Your task to perform on an android device: Empty the shopping cart on costco. Search for "usb-a" on costco, select the first entry, and add it to the cart. Image 0: 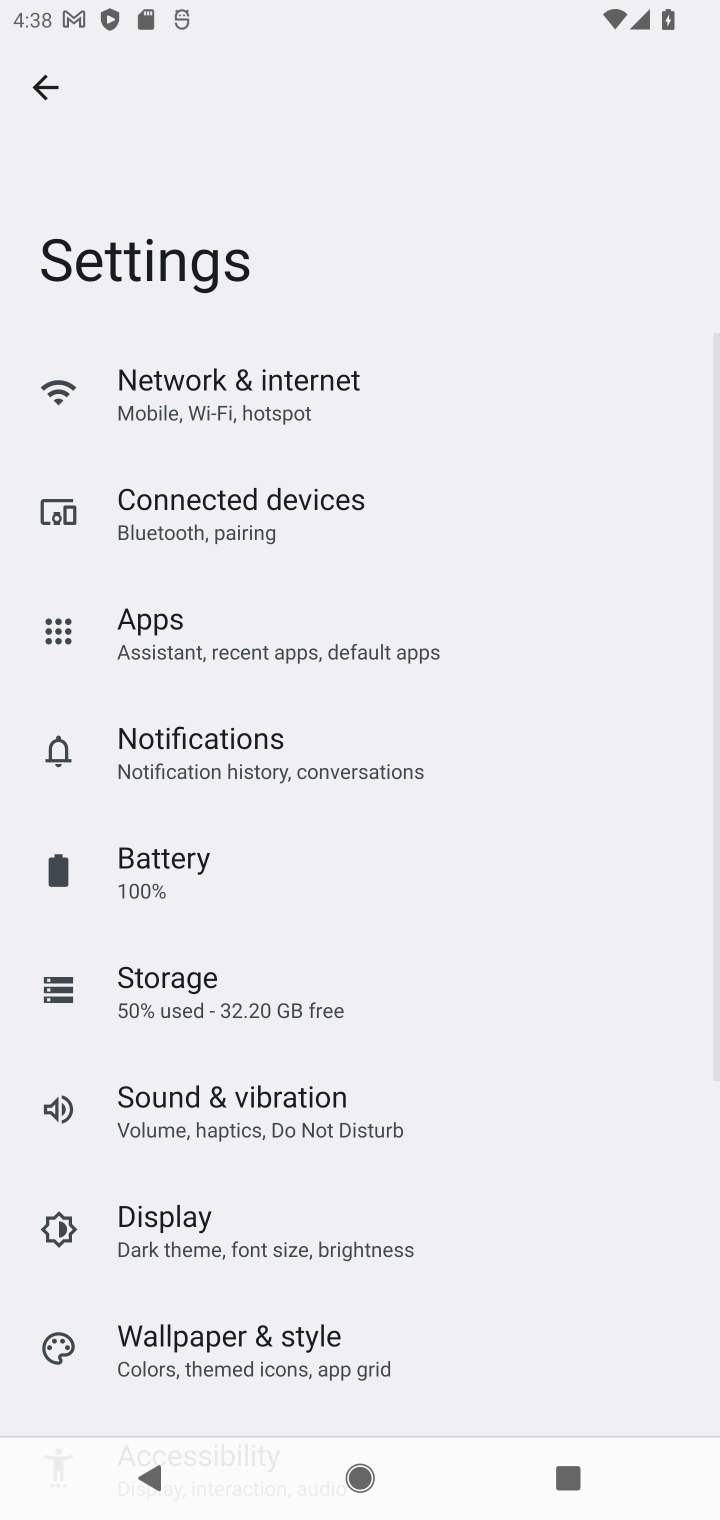
Step 0: press home button
Your task to perform on an android device: Empty the shopping cart on costco. Search for "usb-a" on costco, select the first entry, and add it to the cart. Image 1: 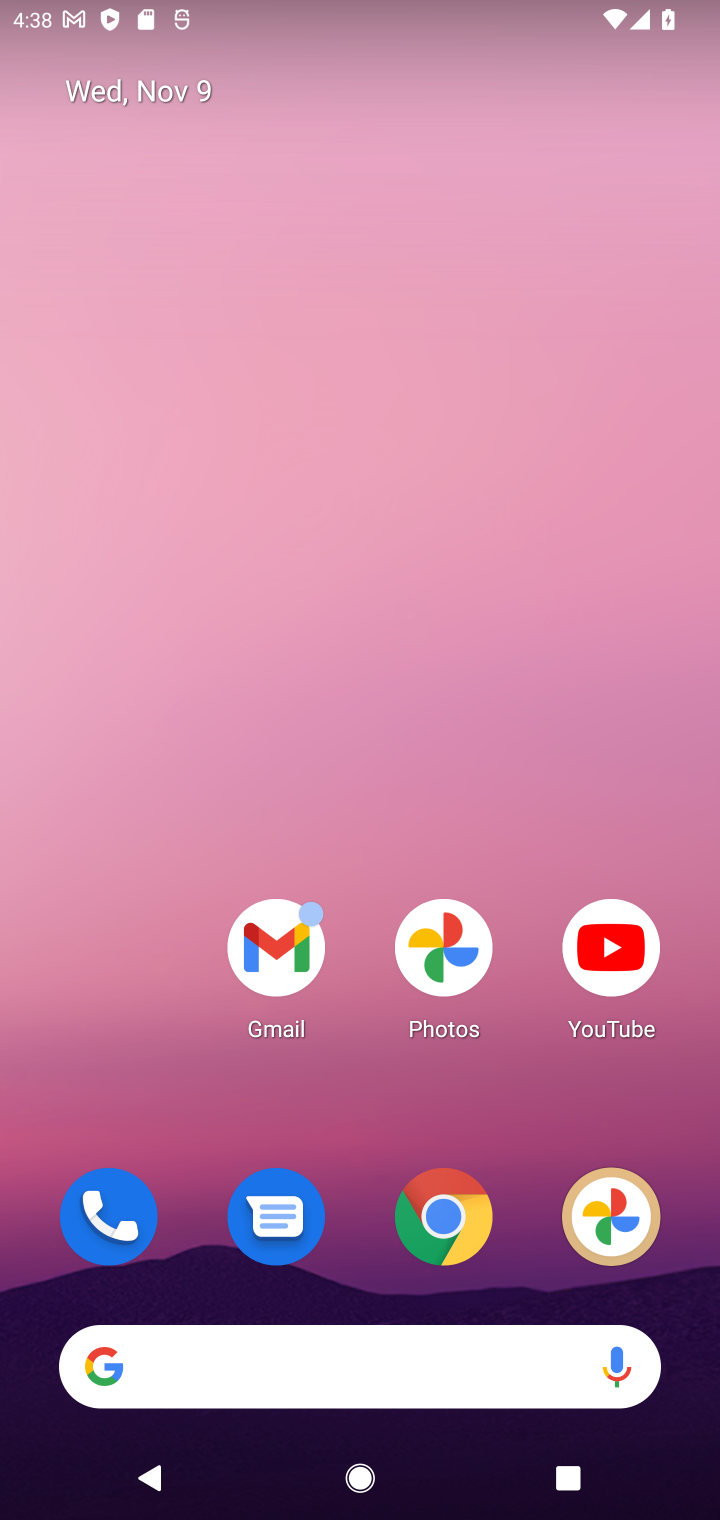
Step 1: drag from (362, 1260) to (309, 269)
Your task to perform on an android device: Empty the shopping cart on costco. Search for "usb-a" on costco, select the first entry, and add it to the cart. Image 2: 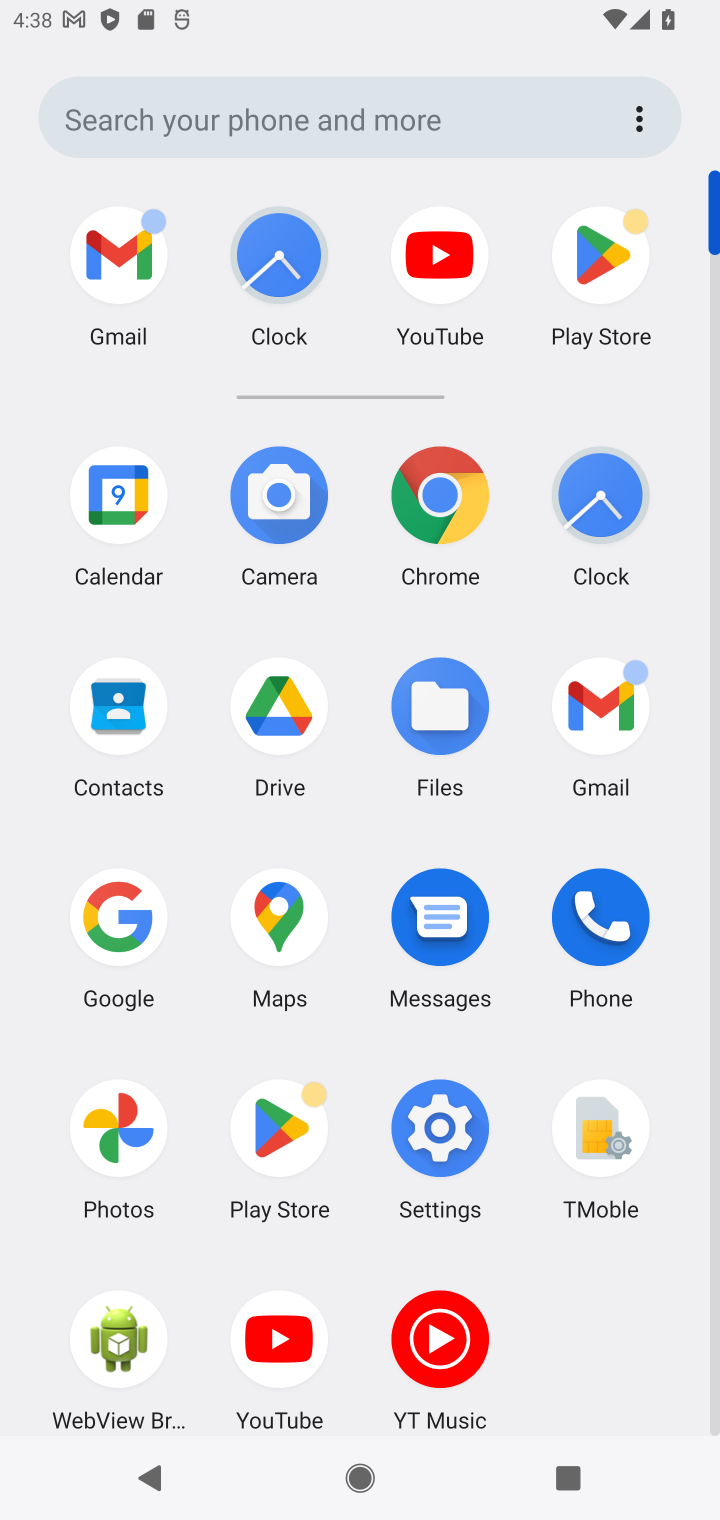
Step 2: click (447, 497)
Your task to perform on an android device: Empty the shopping cart on costco. Search for "usb-a" on costco, select the first entry, and add it to the cart. Image 3: 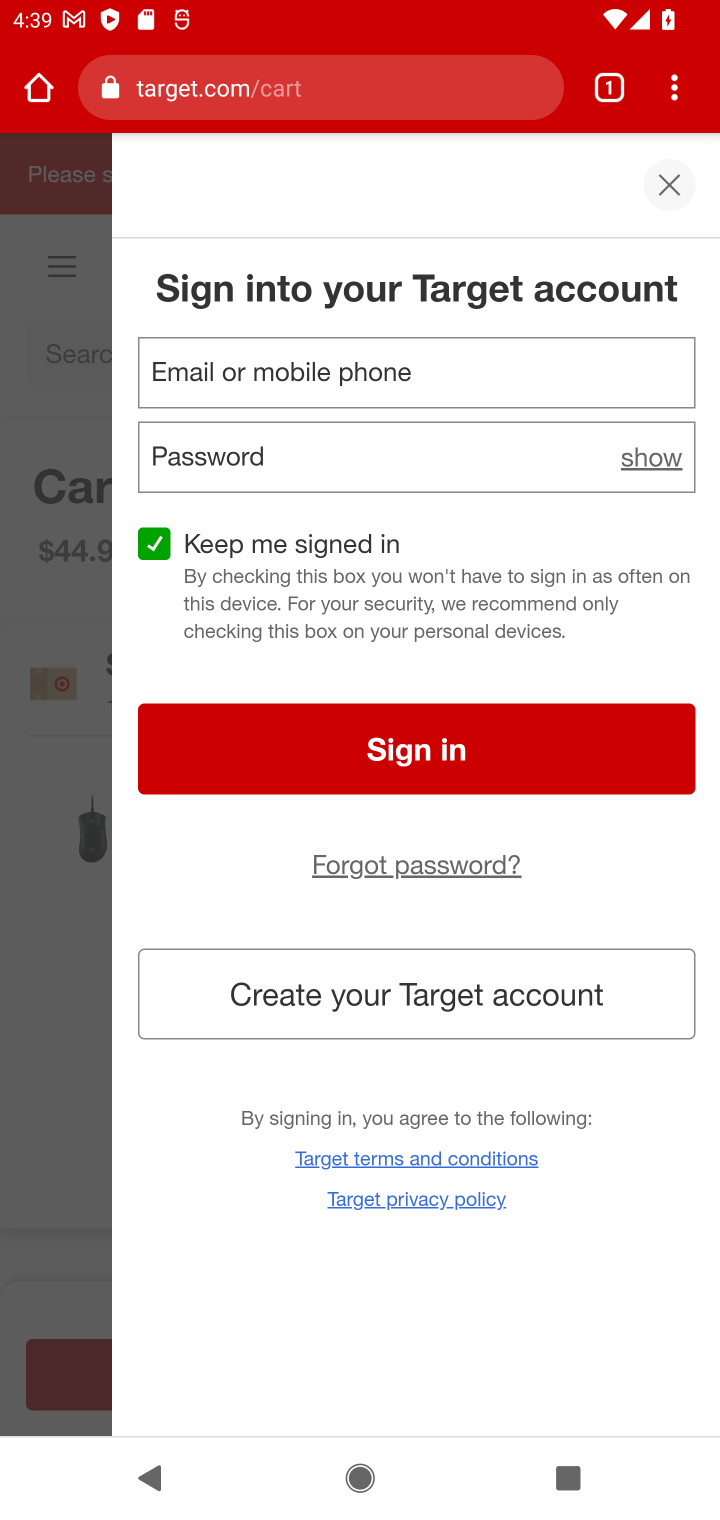
Step 3: click (405, 72)
Your task to perform on an android device: Empty the shopping cart on costco. Search for "usb-a" on costco, select the first entry, and add it to the cart. Image 4: 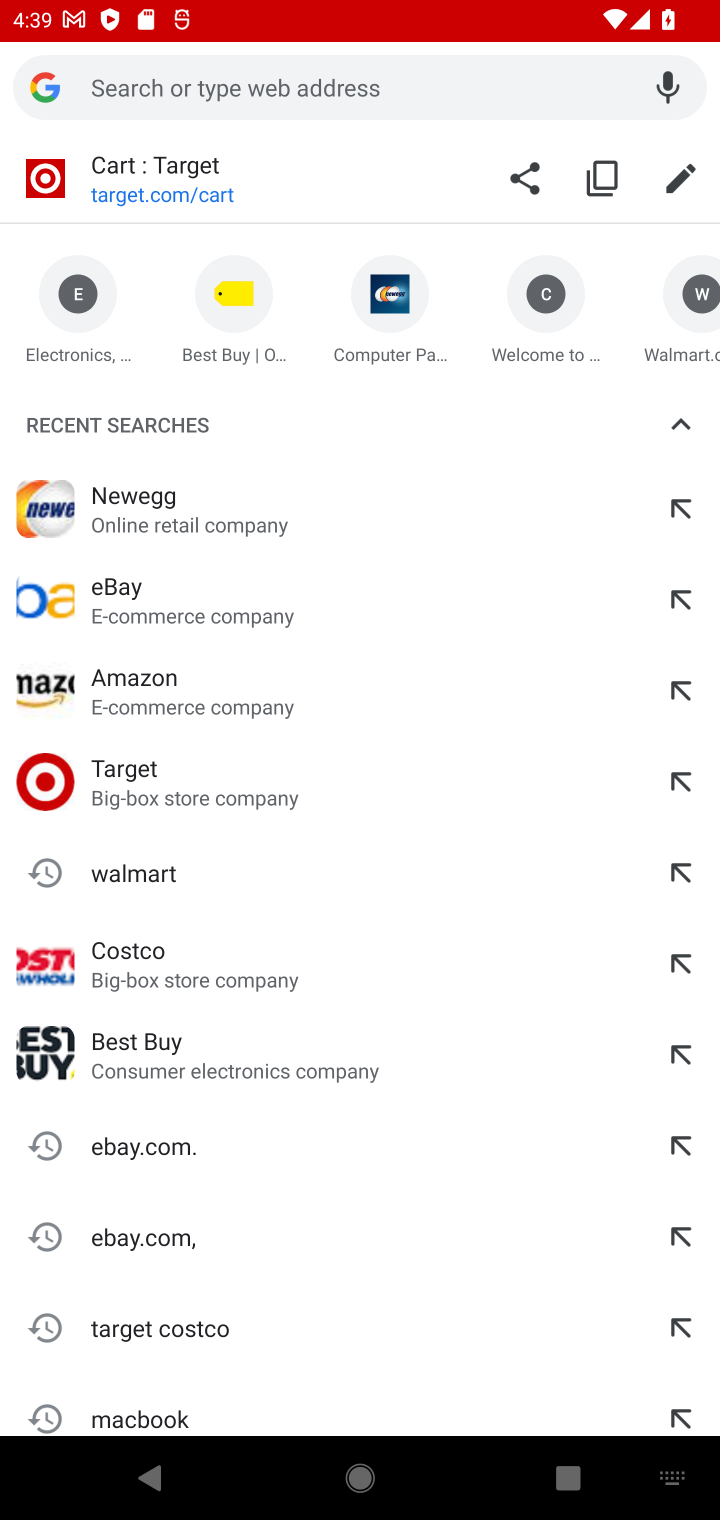
Step 4: type "costco.com"
Your task to perform on an android device: Empty the shopping cart on costco. Search for "usb-a" on costco, select the first entry, and add it to the cart. Image 5: 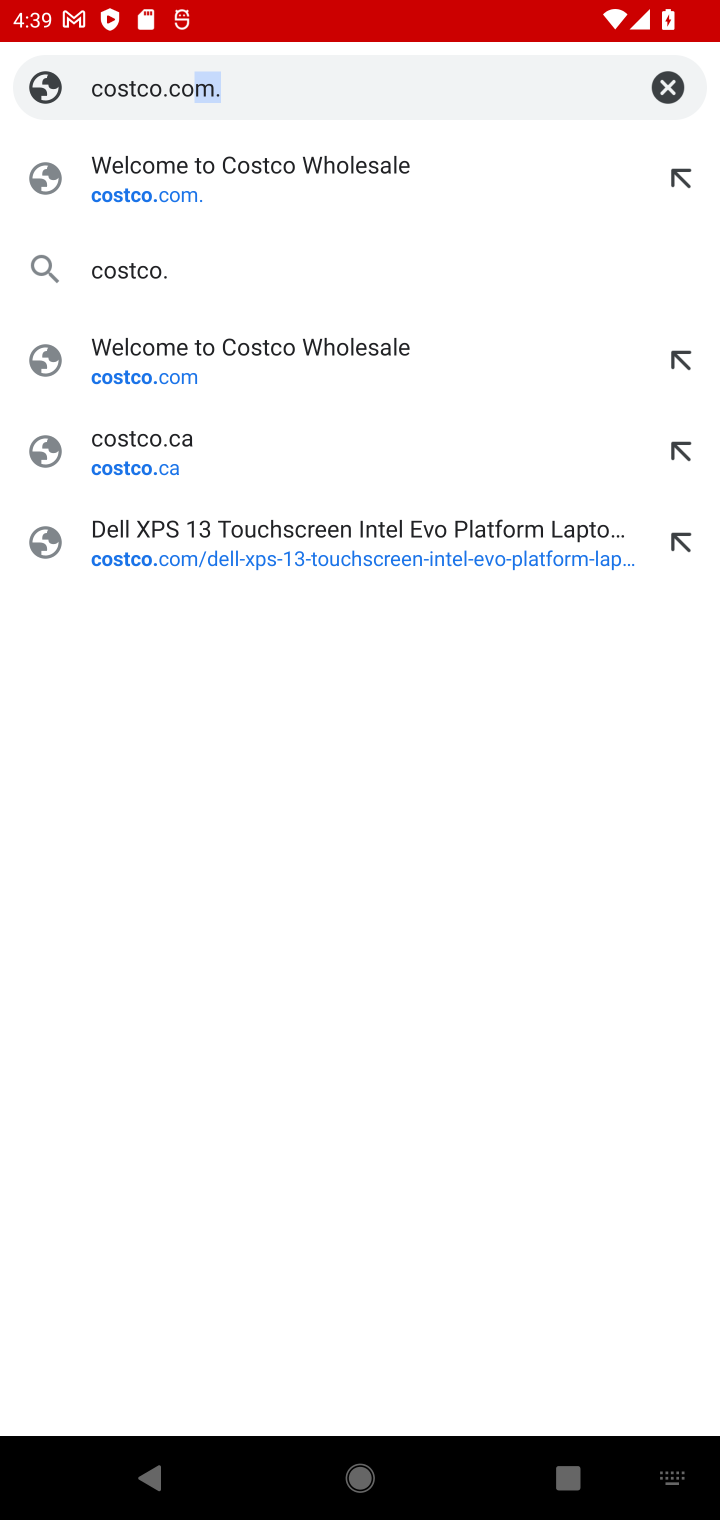
Step 5: press enter
Your task to perform on an android device: Empty the shopping cart on costco. Search for "usb-a" on costco, select the first entry, and add it to the cart. Image 6: 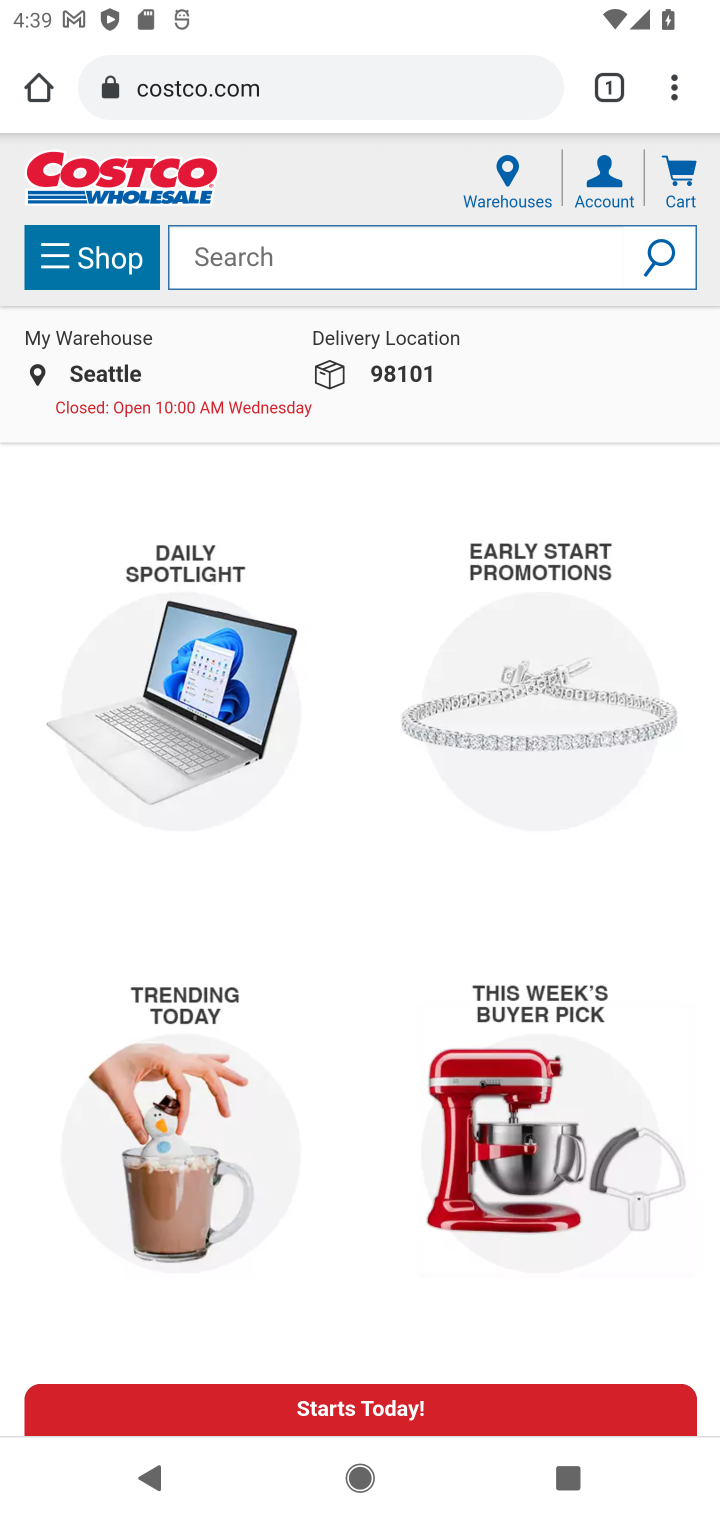
Step 6: click (682, 167)
Your task to perform on an android device: Empty the shopping cart on costco. Search for "usb-a" on costco, select the first entry, and add it to the cart. Image 7: 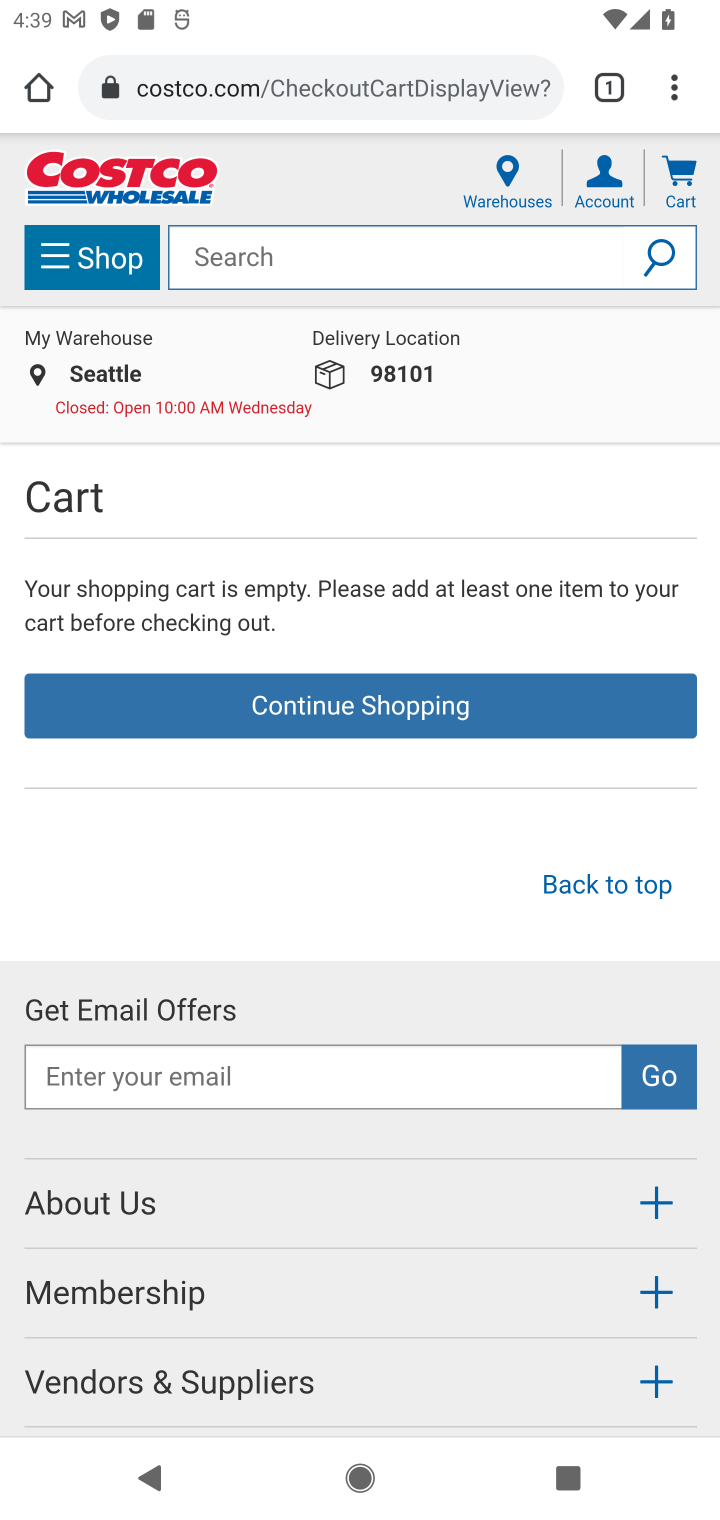
Step 7: click (515, 251)
Your task to perform on an android device: Empty the shopping cart on costco. Search for "usb-a" on costco, select the first entry, and add it to the cart. Image 8: 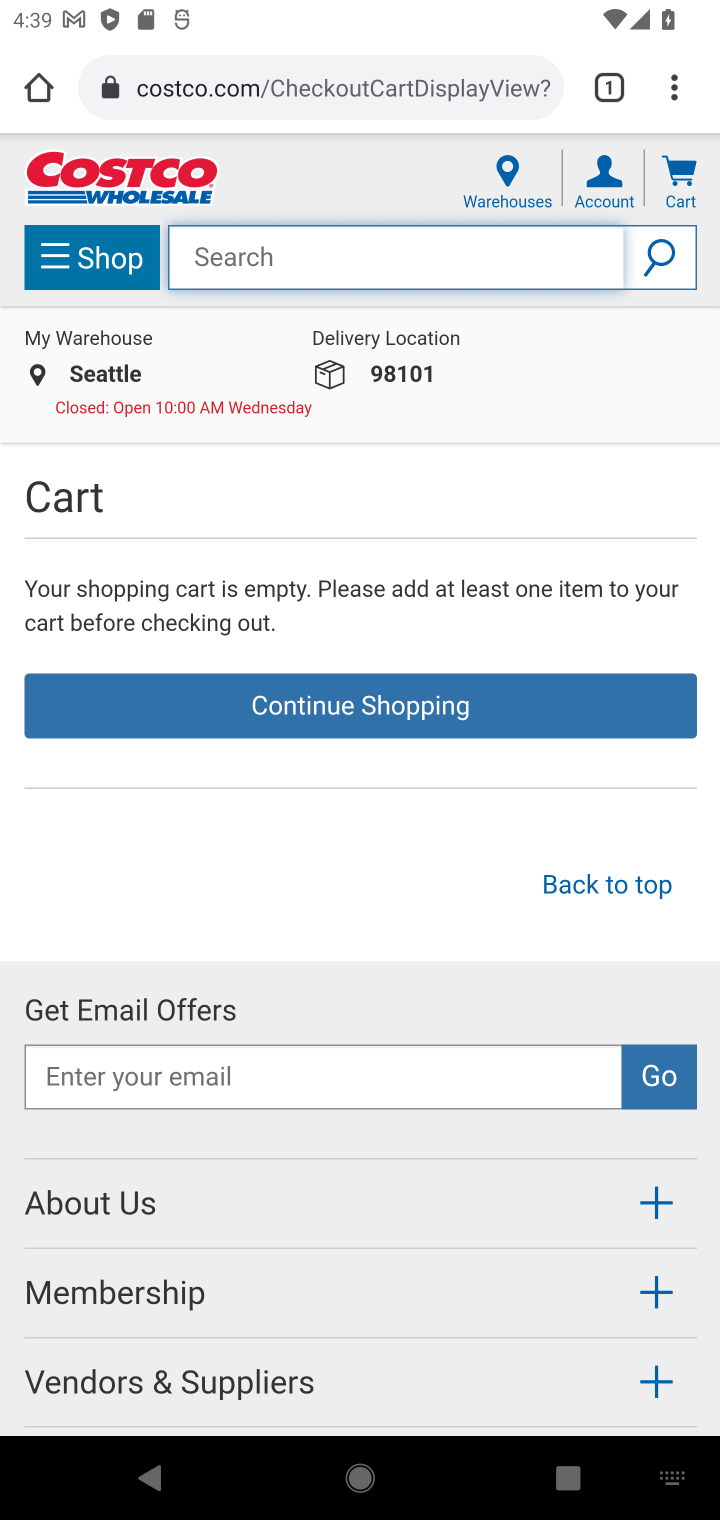
Step 8: type "usb-a"
Your task to perform on an android device: Empty the shopping cart on costco. Search for "usb-a" on costco, select the first entry, and add it to the cart. Image 9: 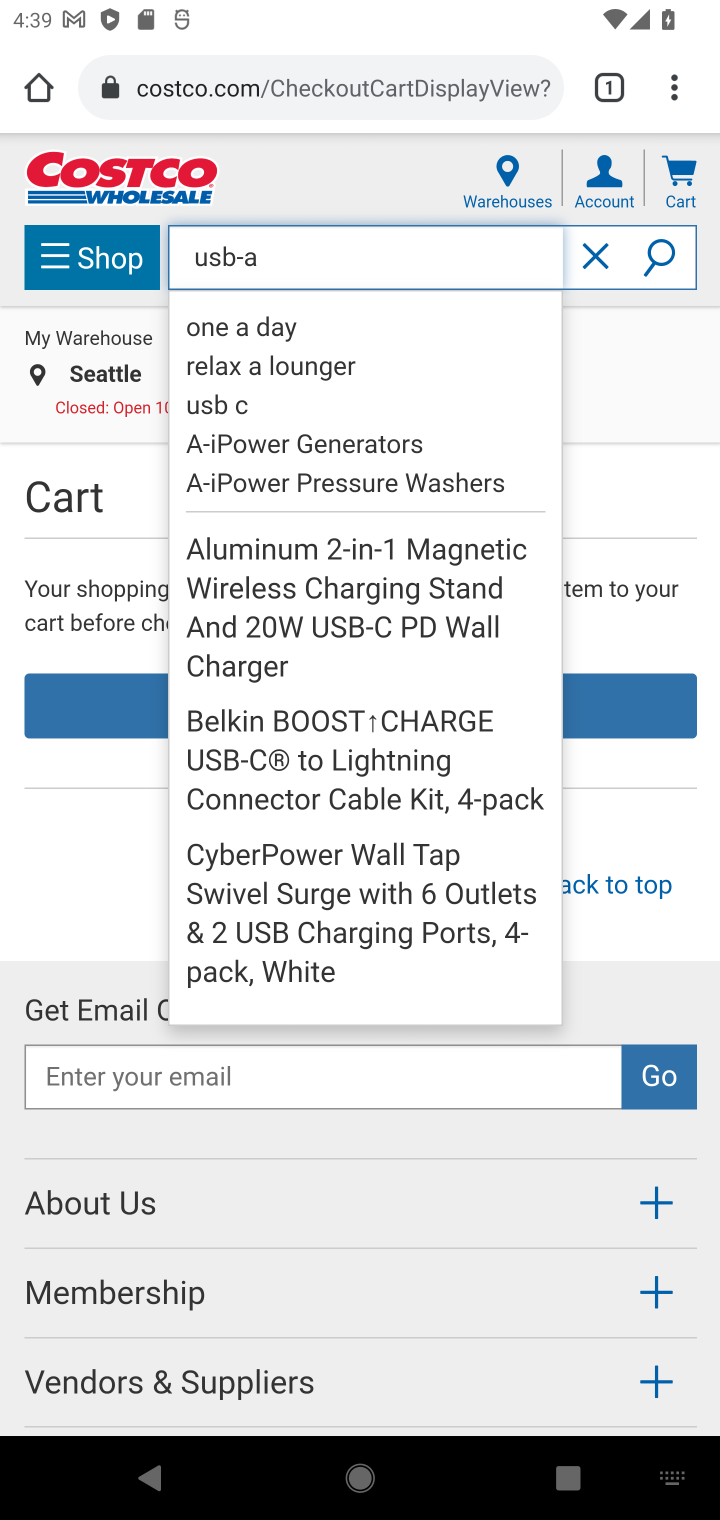
Step 9: press enter
Your task to perform on an android device: Empty the shopping cart on costco. Search for "usb-a" on costco, select the first entry, and add it to the cart. Image 10: 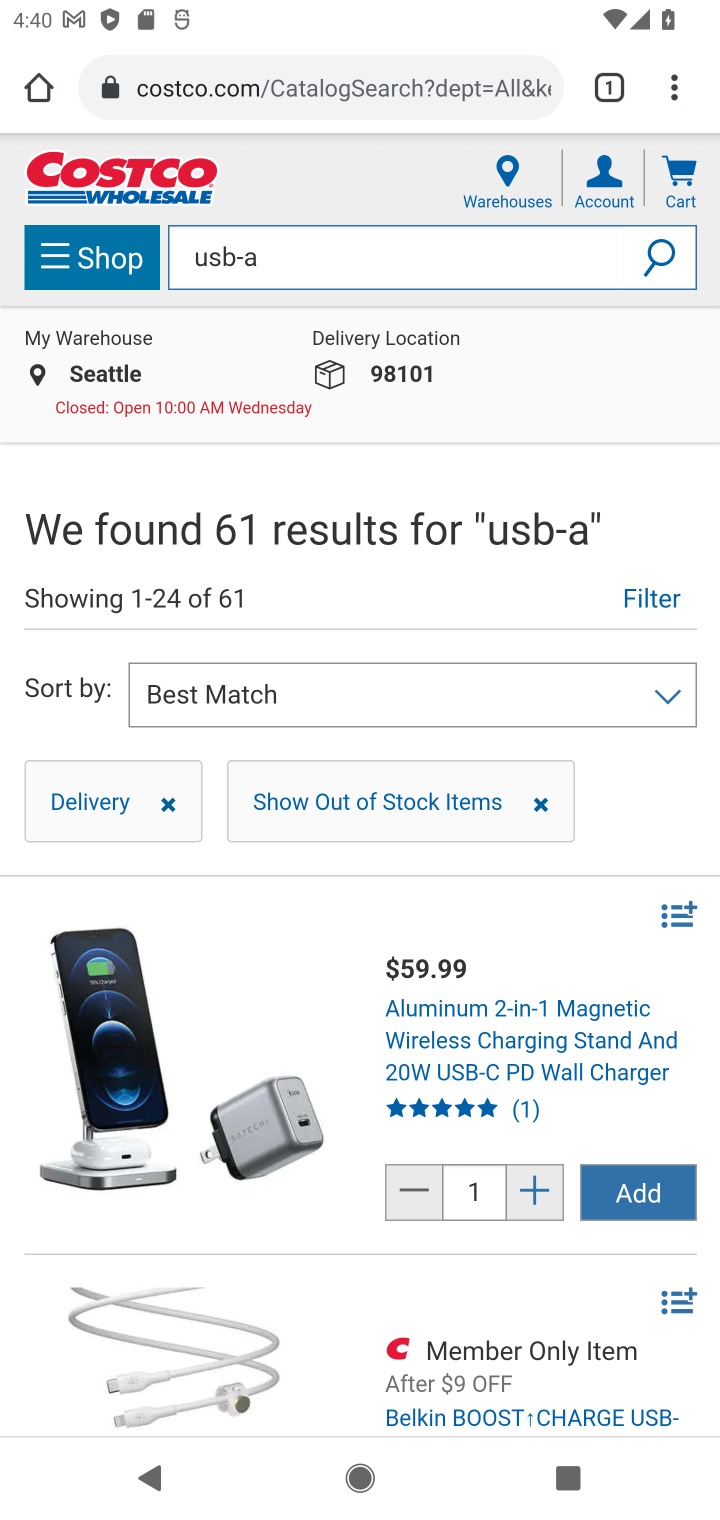
Step 10: drag from (582, 1125) to (555, 878)
Your task to perform on an android device: Empty the shopping cart on costco. Search for "usb-a" on costco, select the first entry, and add it to the cart. Image 11: 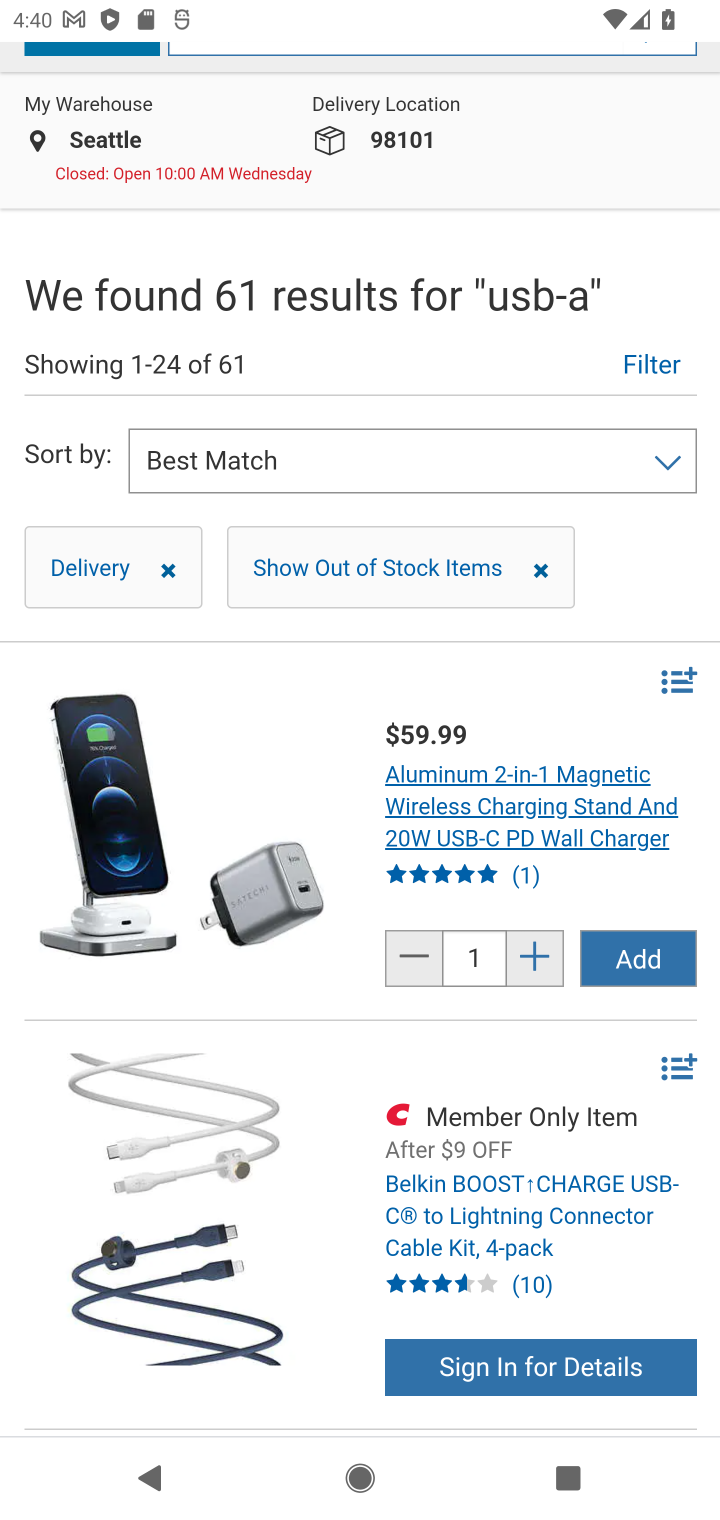
Step 11: drag from (427, 1199) to (445, 925)
Your task to perform on an android device: Empty the shopping cart on costco. Search for "usb-a" on costco, select the first entry, and add it to the cart. Image 12: 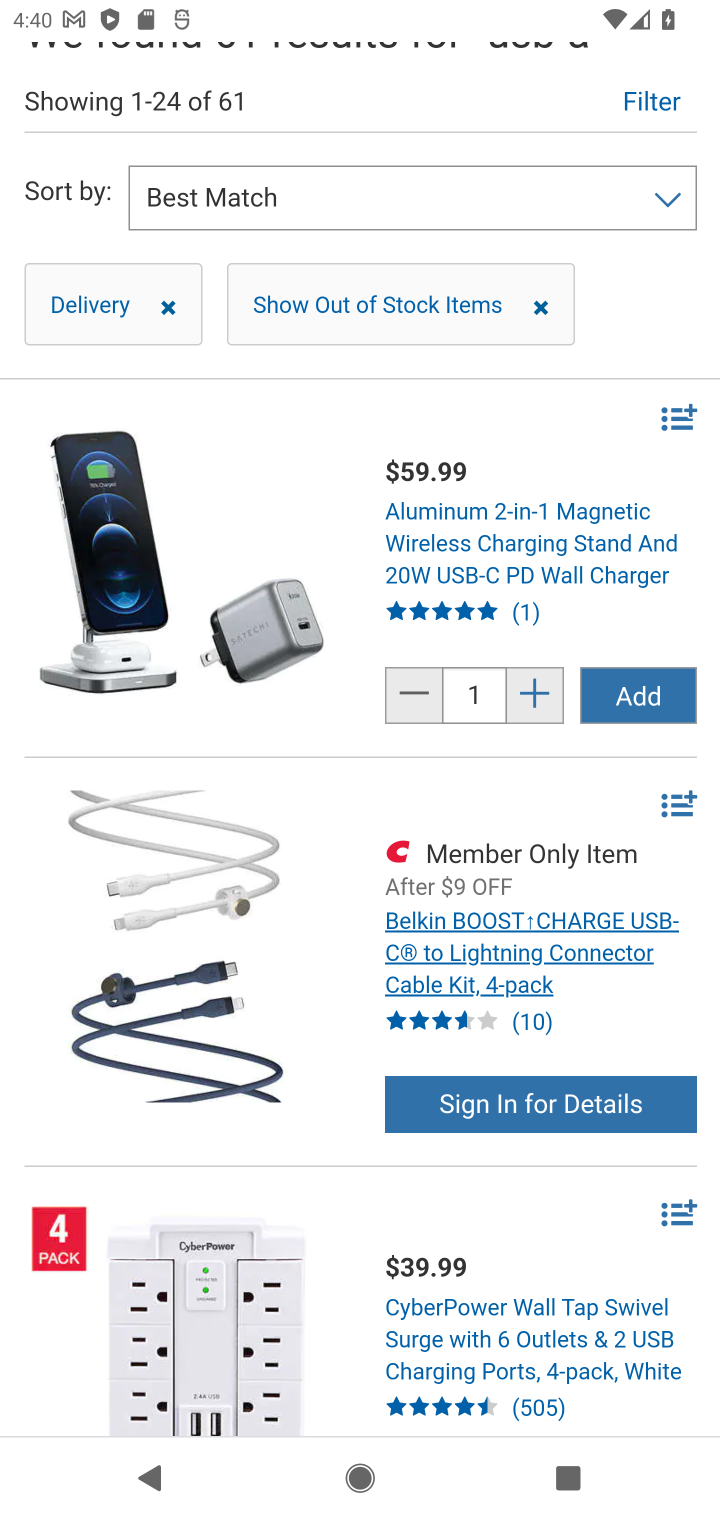
Step 12: click (498, 563)
Your task to perform on an android device: Empty the shopping cart on costco. Search for "usb-a" on costco, select the first entry, and add it to the cart. Image 13: 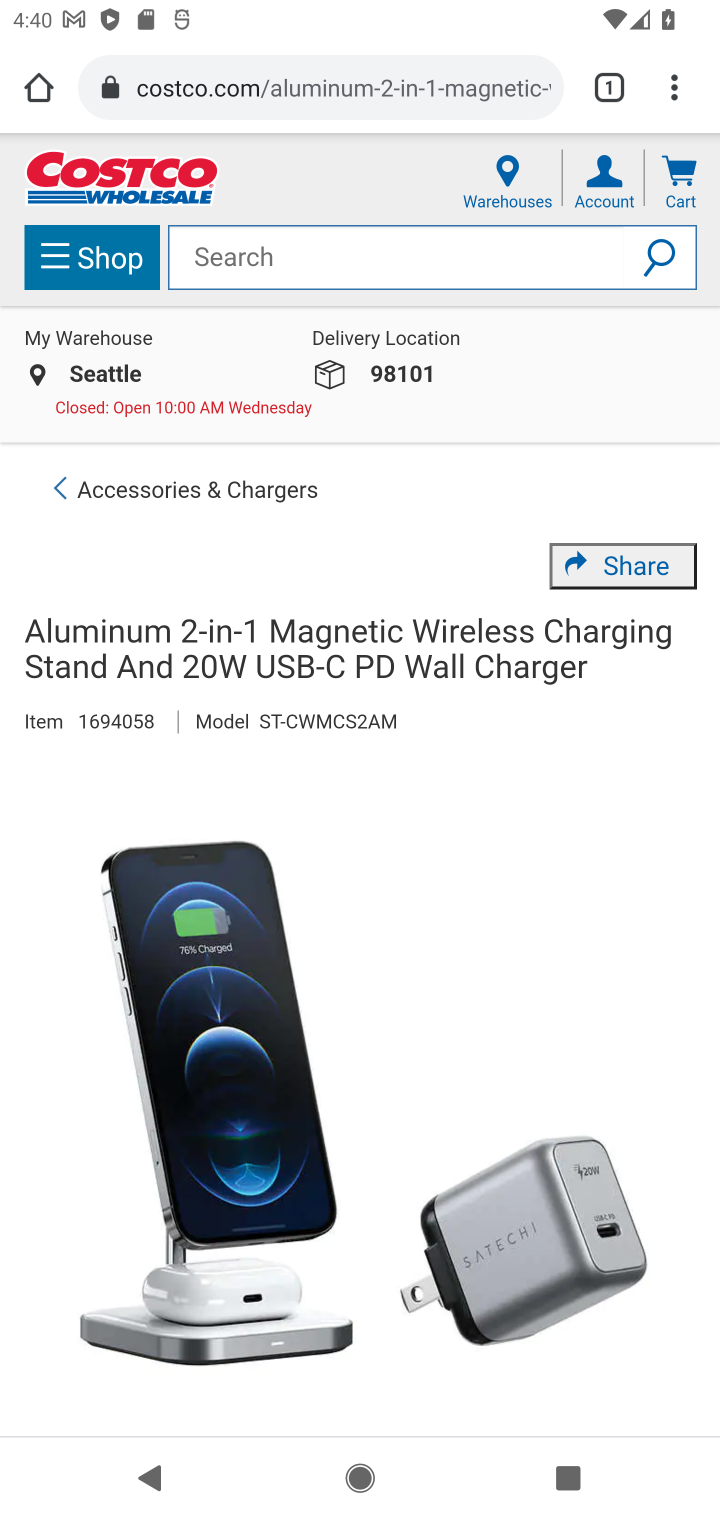
Step 13: drag from (573, 1001) to (461, 290)
Your task to perform on an android device: Empty the shopping cart on costco. Search for "usb-a" on costco, select the first entry, and add it to the cart. Image 14: 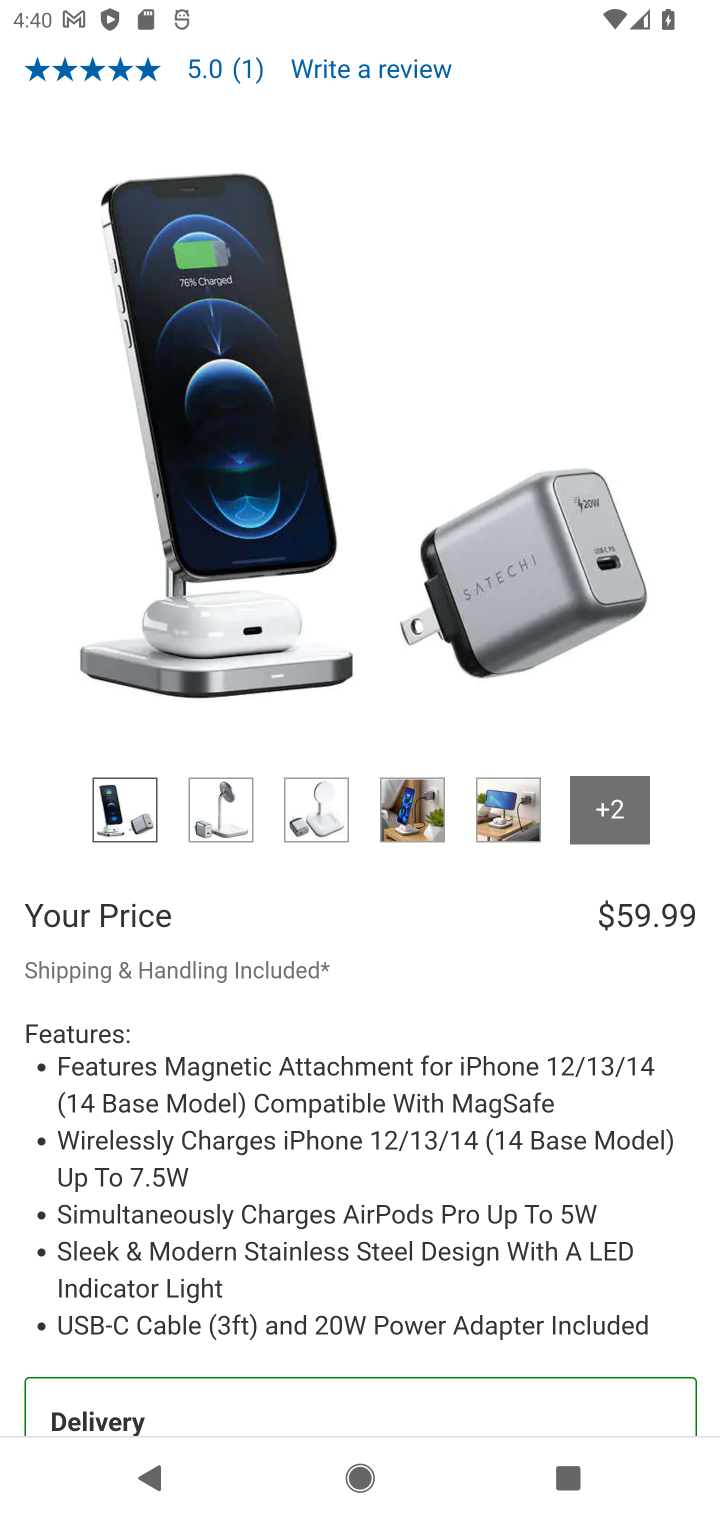
Step 14: drag from (396, 1105) to (452, 628)
Your task to perform on an android device: Empty the shopping cart on costco. Search for "usb-a" on costco, select the first entry, and add it to the cart. Image 15: 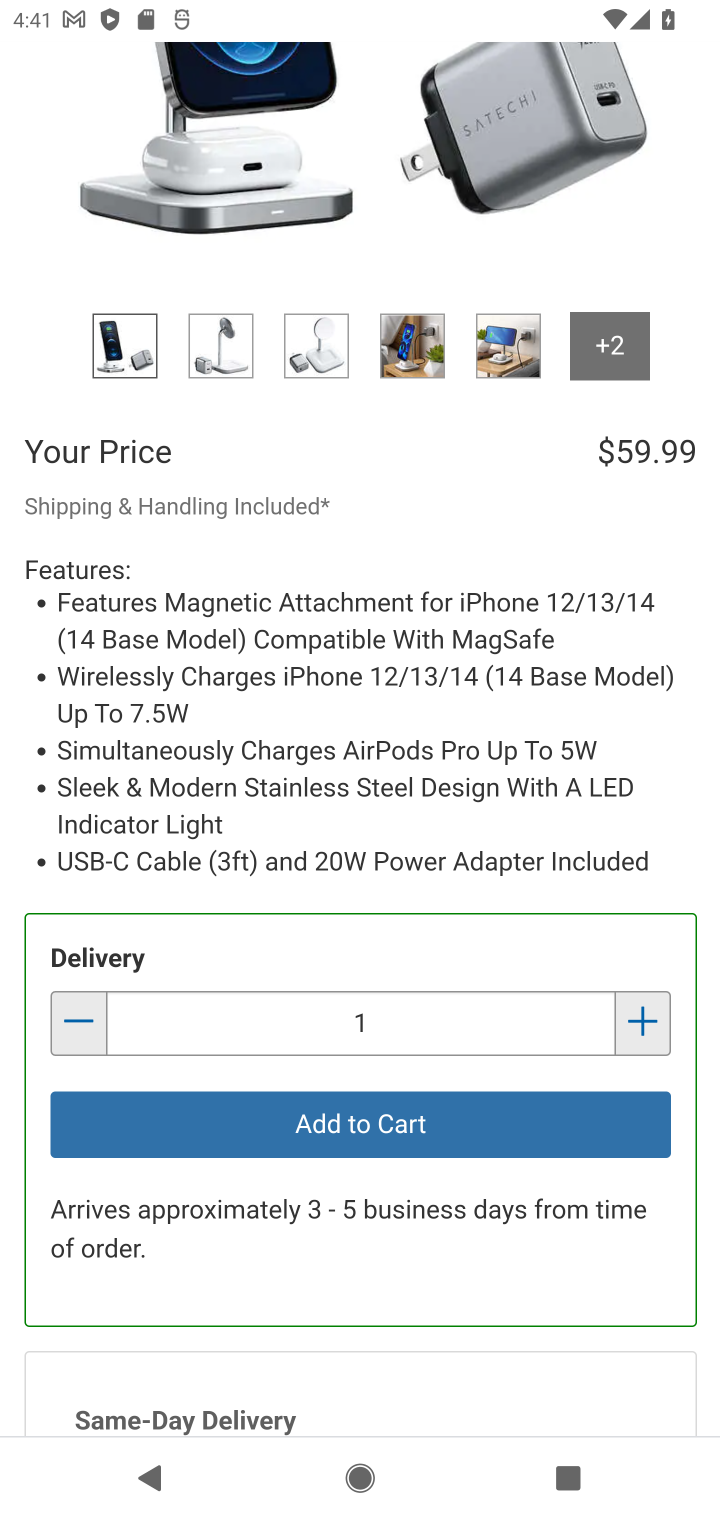
Step 15: drag from (437, 472) to (341, 1450)
Your task to perform on an android device: Empty the shopping cart on costco. Search for "usb-a" on costco, select the first entry, and add it to the cart. Image 16: 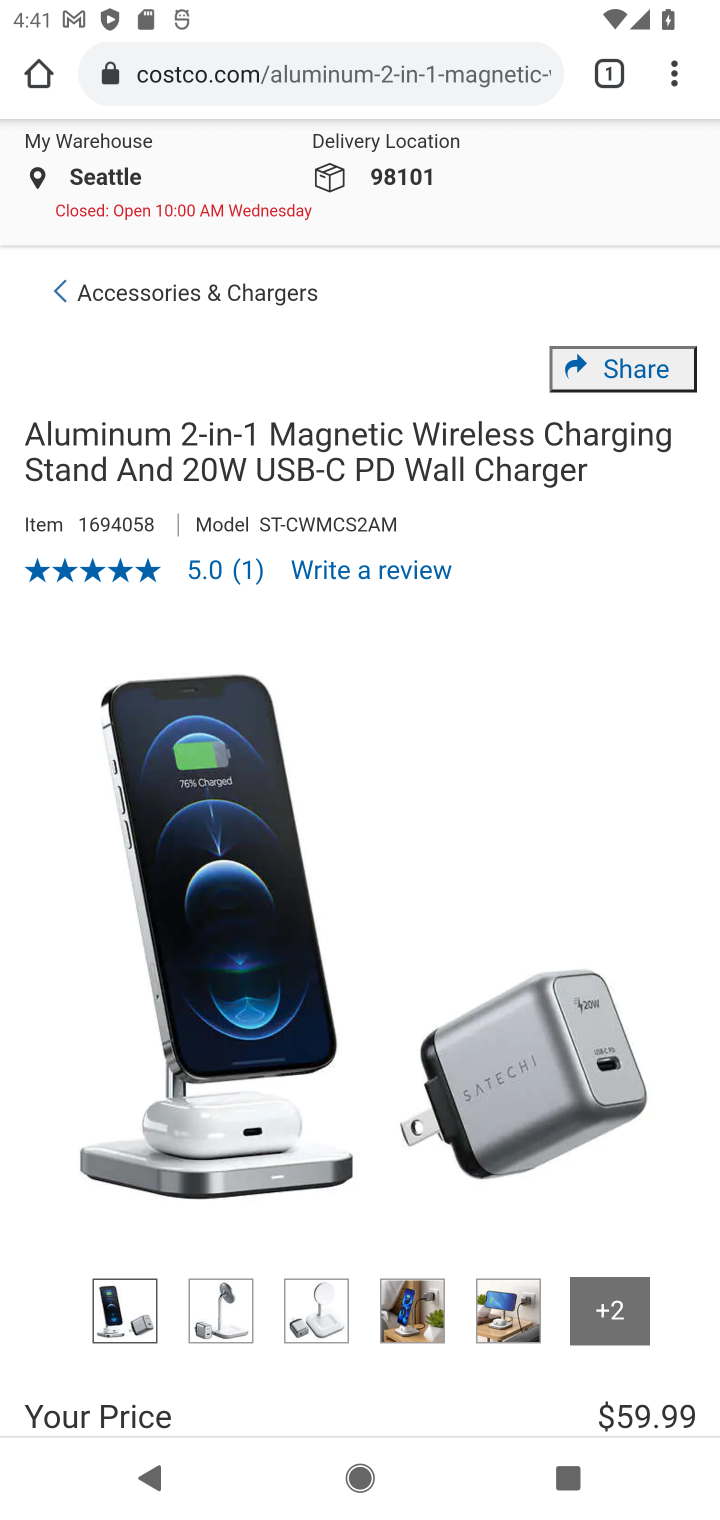
Step 16: drag from (529, 597) to (459, 20)
Your task to perform on an android device: Empty the shopping cart on costco. Search for "usb-a" on costco, select the first entry, and add it to the cart. Image 17: 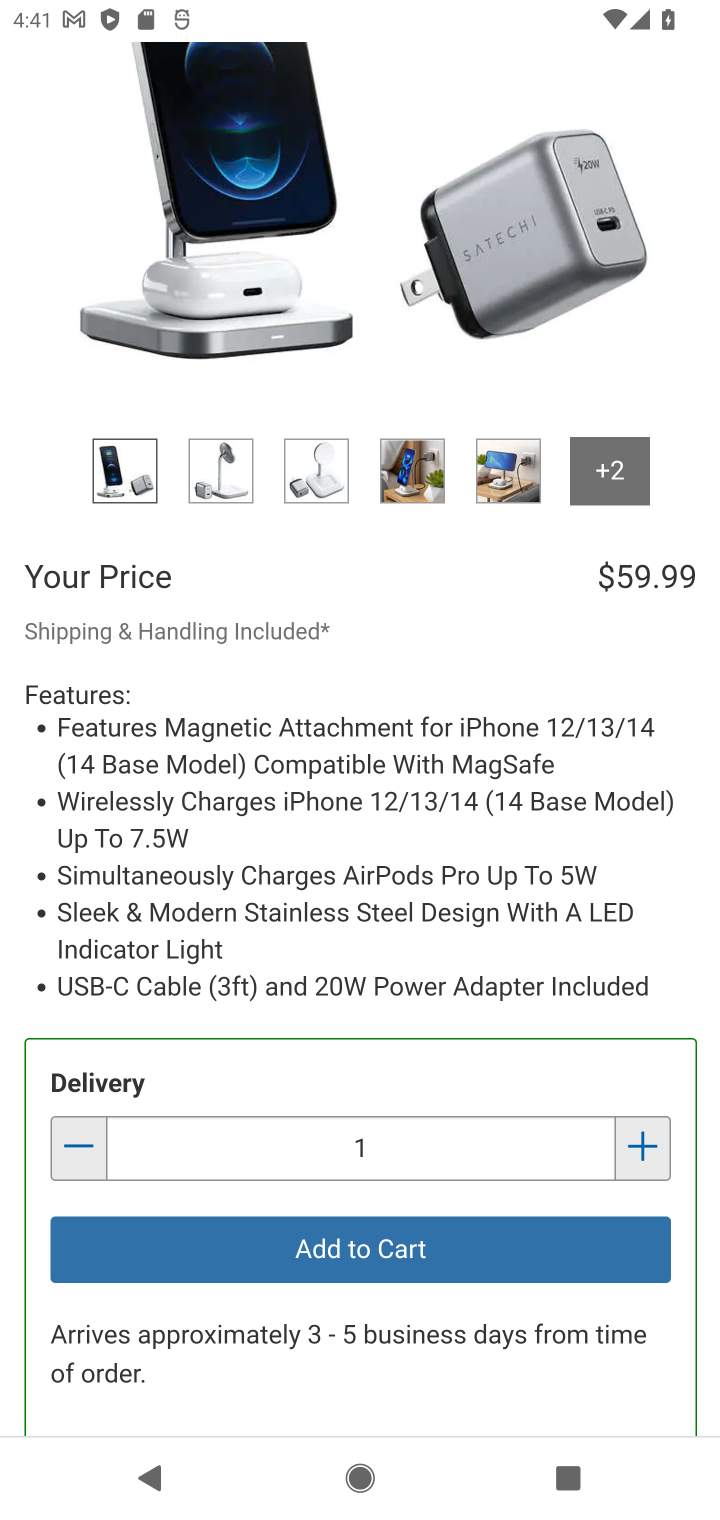
Step 17: click (486, 1248)
Your task to perform on an android device: Empty the shopping cart on costco. Search for "usb-a" on costco, select the first entry, and add it to the cart. Image 18: 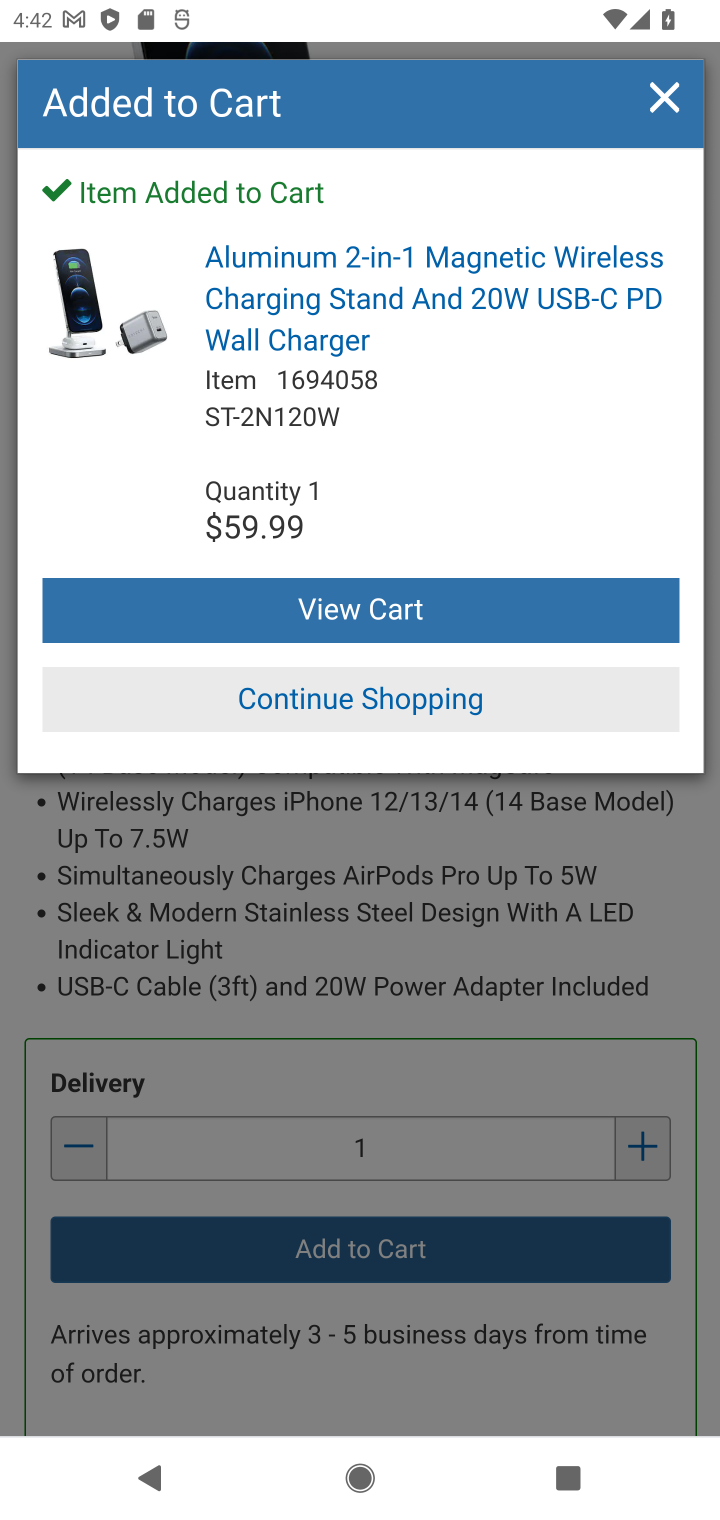
Step 18: task complete